Your task to perform on an android device: Open internet settings Image 0: 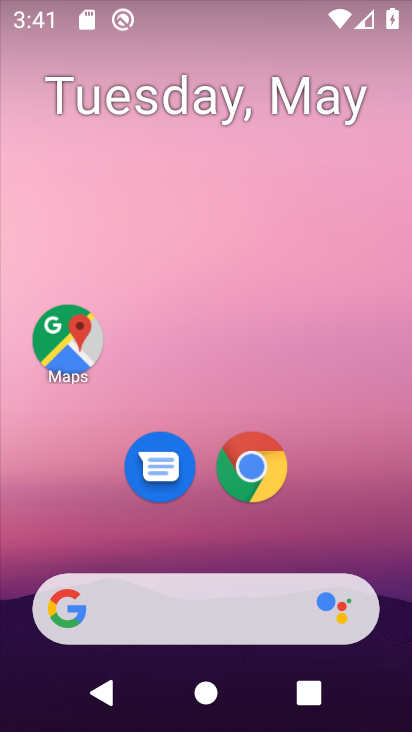
Step 0: drag from (322, 539) to (218, 62)
Your task to perform on an android device: Open internet settings Image 1: 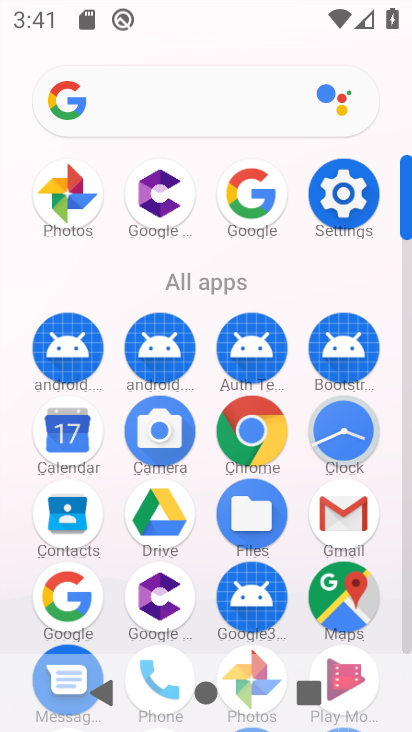
Step 1: click (346, 206)
Your task to perform on an android device: Open internet settings Image 2: 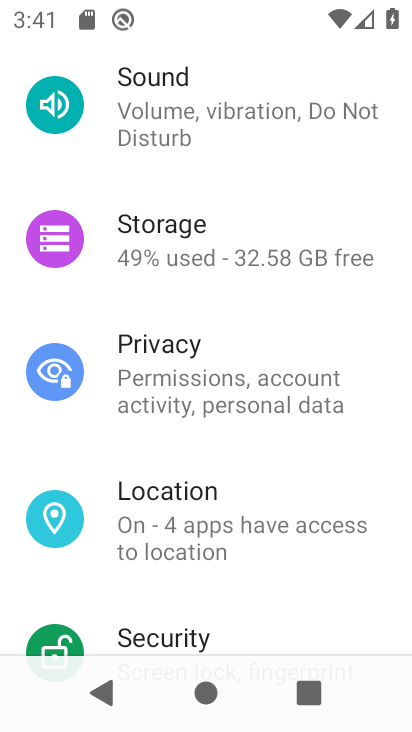
Step 2: drag from (141, 157) to (90, 490)
Your task to perform on an android device: Open internet settings Image 3: 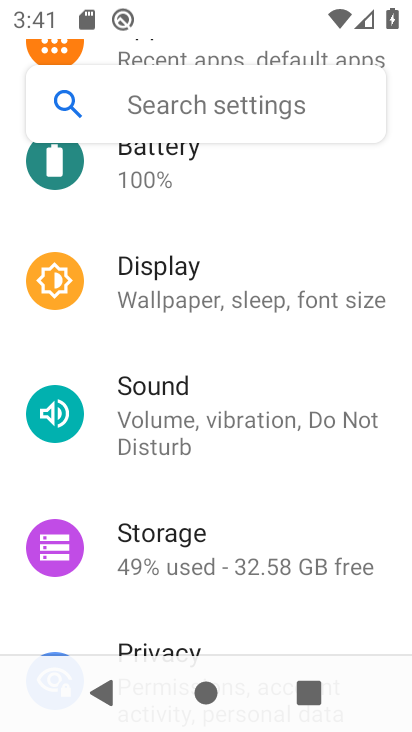
Step 3: drag from (212, 285) to (224, 626)
Your task to perform on an android device: Open internet settings Image 4: 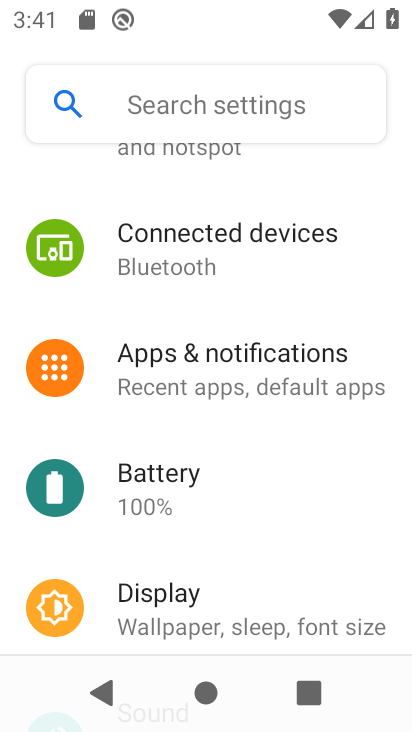
Step 4: drag from (193, 237) to (174, 588)
Your task to perform on an android device: Open internet settings Image 5: 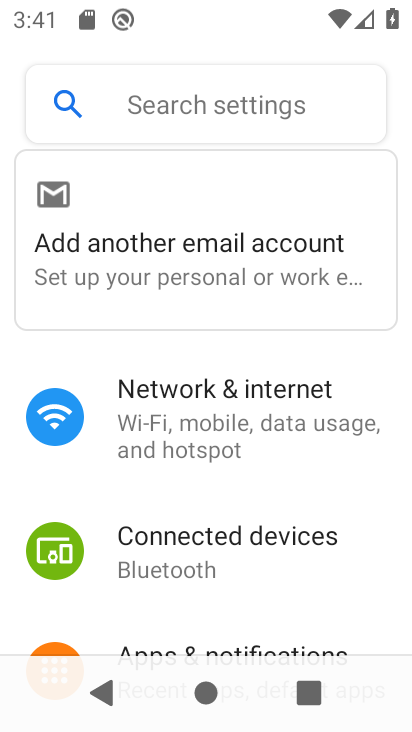
Step 5: click (214, 417)
Your task to perform on an android device: Open internet settings Image 6: 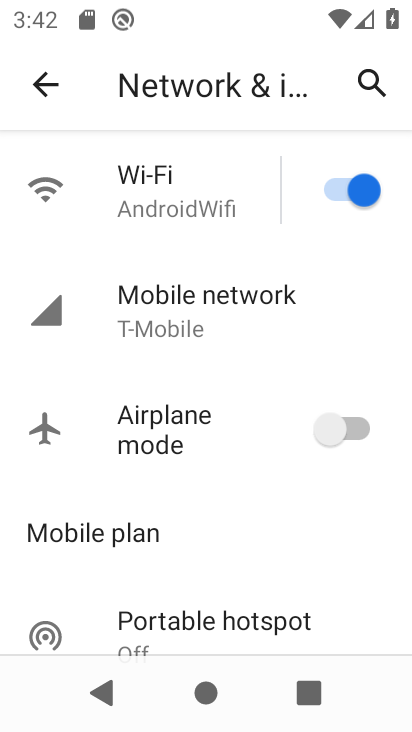
Step 6: task complete